Your task to perform on an android device: check data usage Image 0: 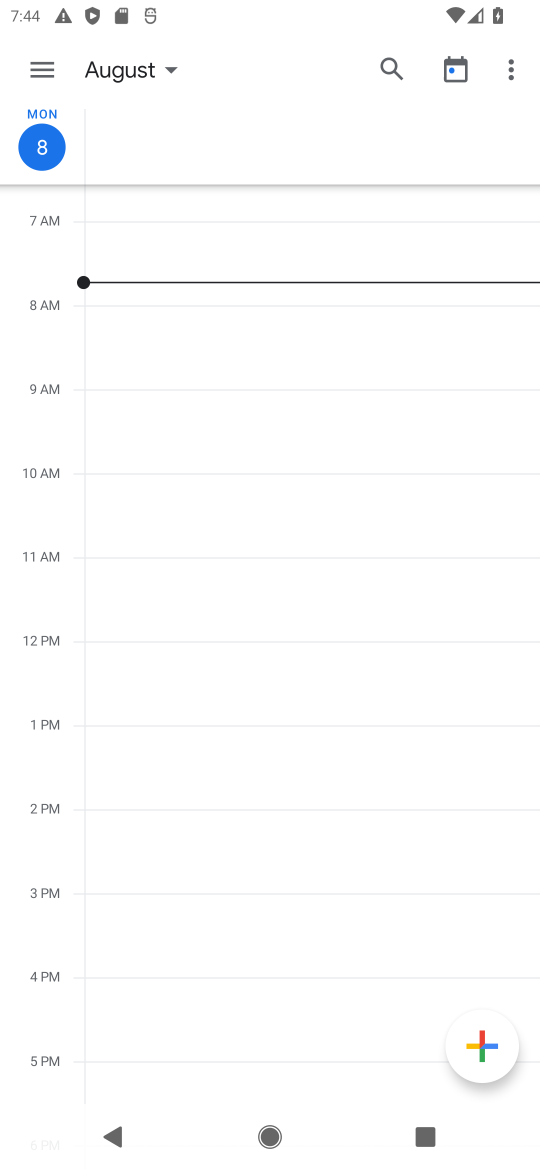
Step 0: drag from (248, 7) to (234, 1038)
Your task to perform on an android device: check data usage Image 1: 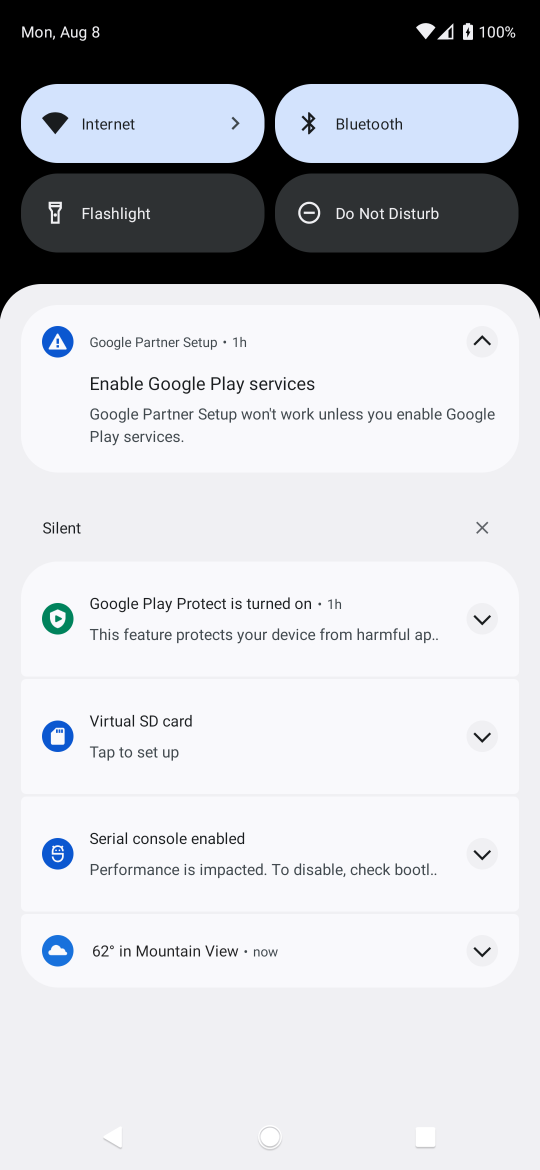
Step 1: click (198, 121)
Your task to perform on an android device: check data usage Image 2: 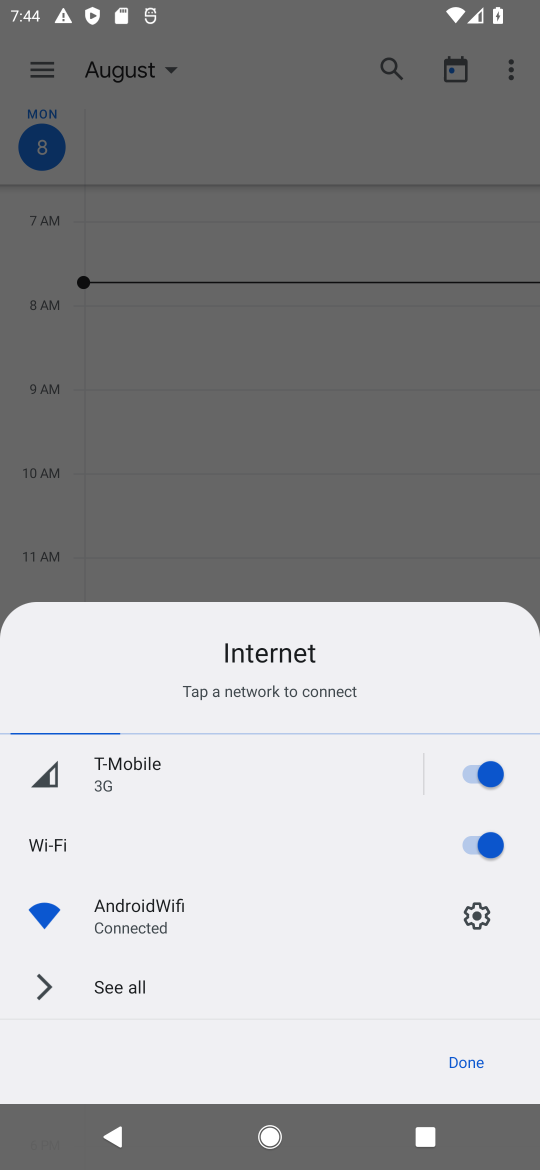
Step 2: click (469, 912)
Your task to perform on an android device: check data usage Image 3: 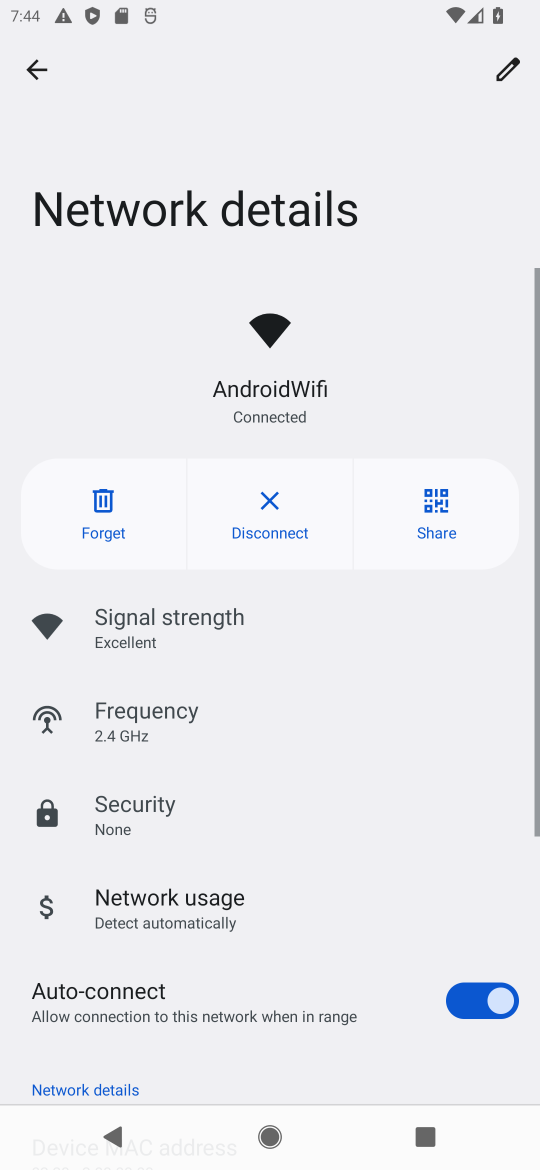
Step 3: task complete